Your task to perform on an android device: Open eBay Image 0: 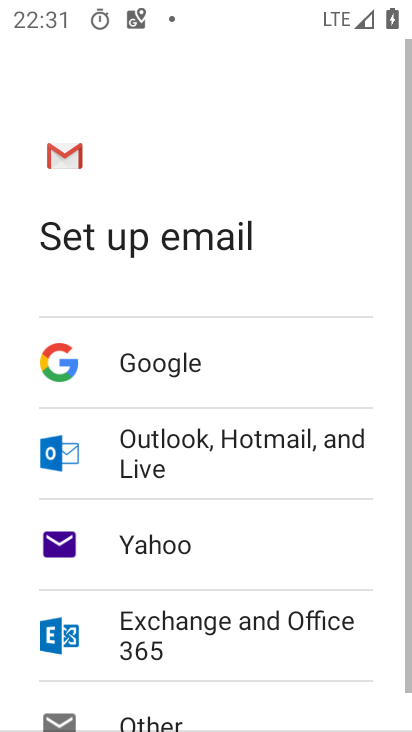
Step 0: press home button
Your task to perform on an android device: Open eBay Image 1: 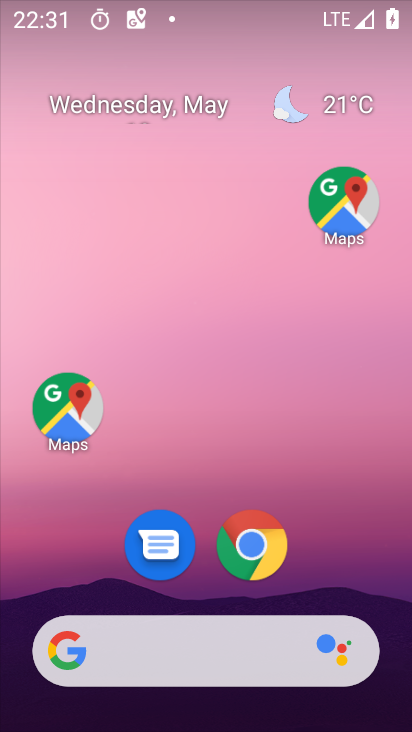
Step 1: click (263, 540)
Your task to perform on an android device: Open eBay Image 2: 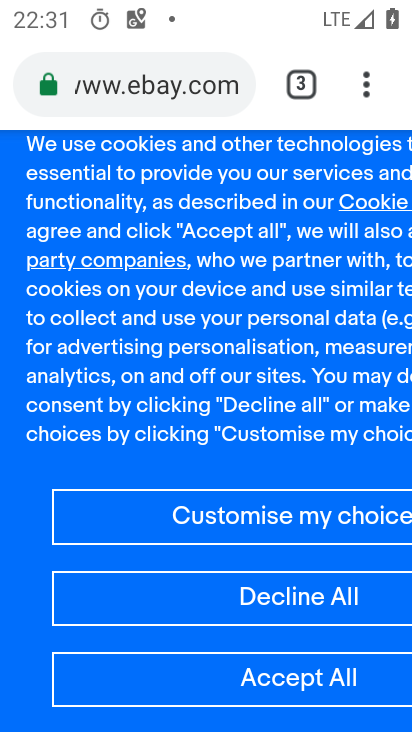
Step 2: task complete